Your task to perform on an android device: toggle javascript in the chrome app Image 0: 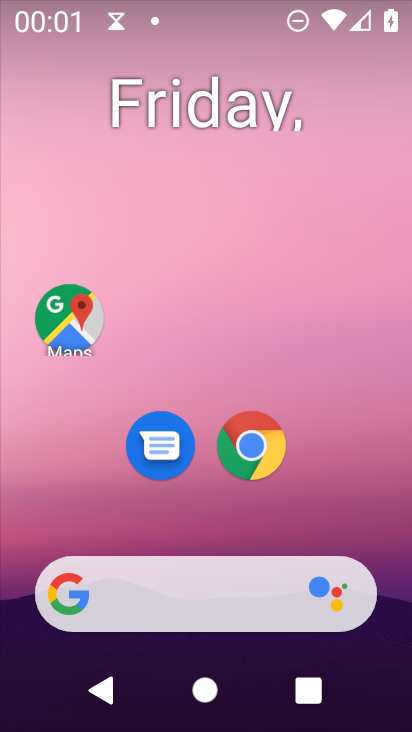
Step 0: click (249, 447)
Your task to perform on an android device: toggle javascript in the chrome app Image 1: 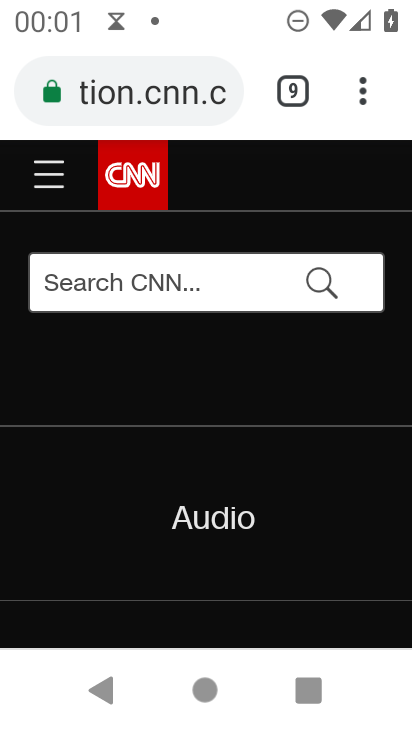
Step 1: click (362, 95)
Your task to perform on an android device: toggle javascript in the chrome app Image 2: 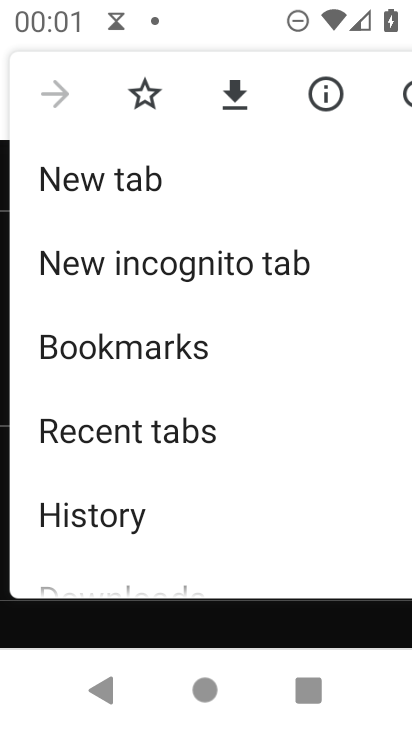
Step 2: drag from (106, 548) to (104, 162)
Your task to perform on an android device: toggle javascript in the chrome app Image 3: 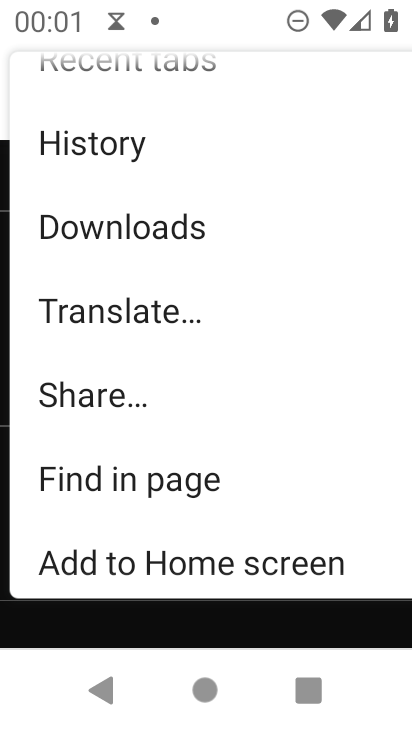
Step 3: drag from (112, 532) to (109, 149)
Your task to perform on an android device: toggle javascript in the chrome app Image 4: 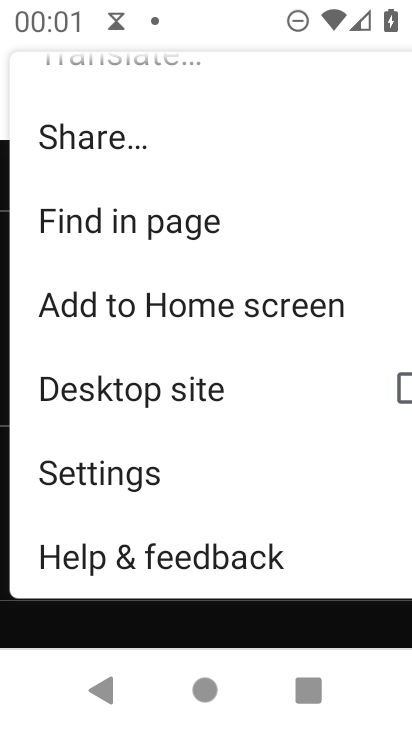
Step 4: click (126, 469)
Your task to perform on an android device: toggle javascript in the chrome app Image 5: 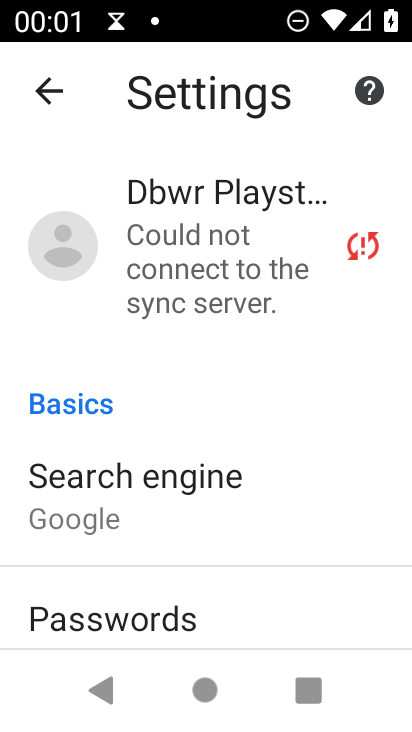
Step 5: drag from (176, 628) to (179, 203)
Your task to perform on an android device: toggle javascript in the chrome app Image 6: 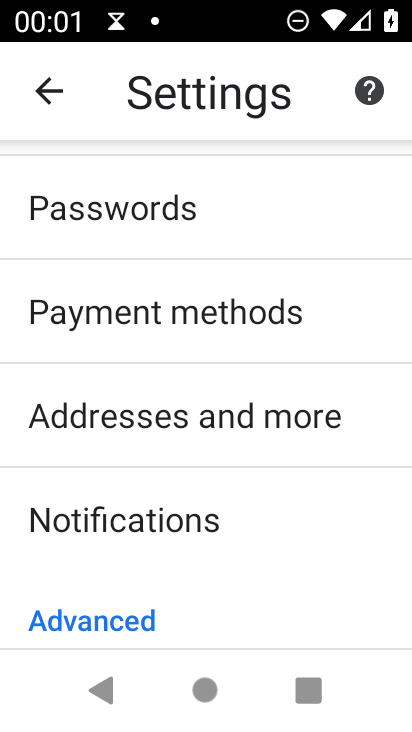
Step 6: drag from (193, 633) to (199, 187)
Your task to perform on an android device: toggle javascript in the chrome app Image 7: 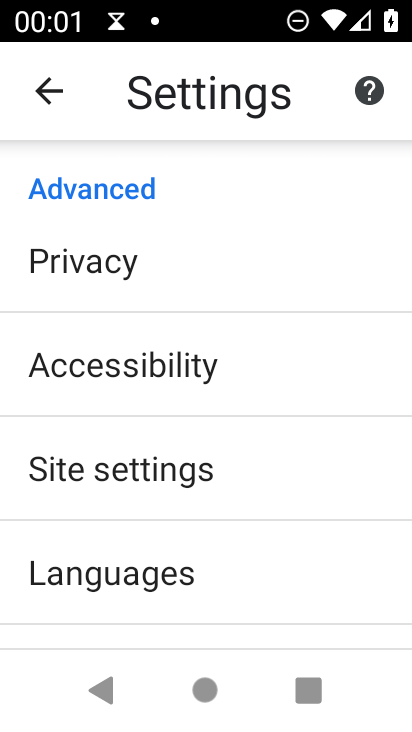
Step 7: click (138, 464)
Your task to perform on an android device: toggle javascript in the chrome app Image 8: 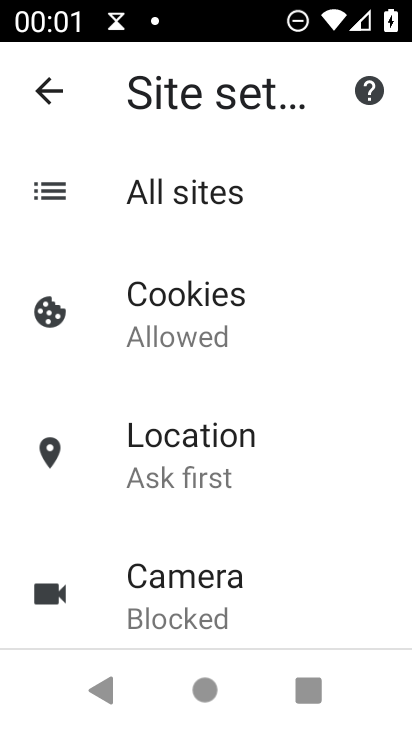
Step 8: drag from (285, 639) to (264, 219)
Your task to perform on an android device: toggle javascript in the chrome app Image 9: 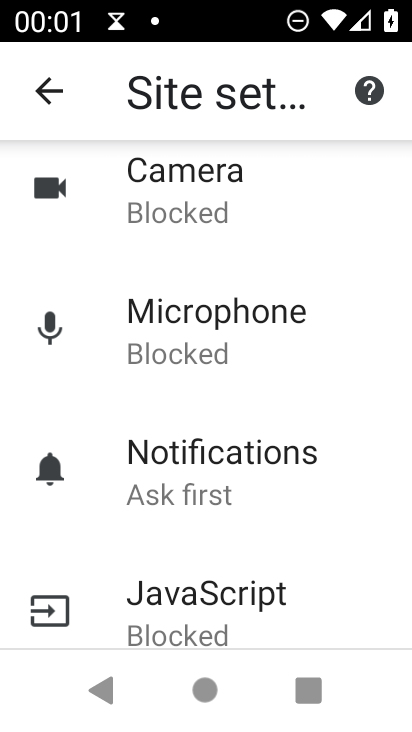
Step 9: click (200, 607)
Your task to perform on an android device: toggle javascript in the chrome app Image 10: 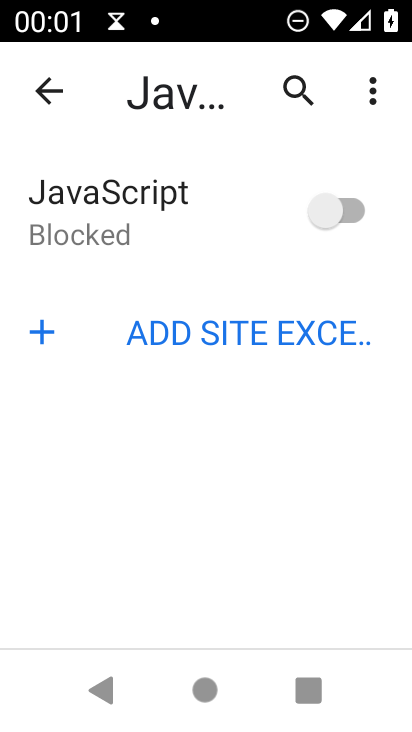
Step 10: click (362, 216)
Your task to perform on an android device: toggle javascript in the chrome app Image 11: 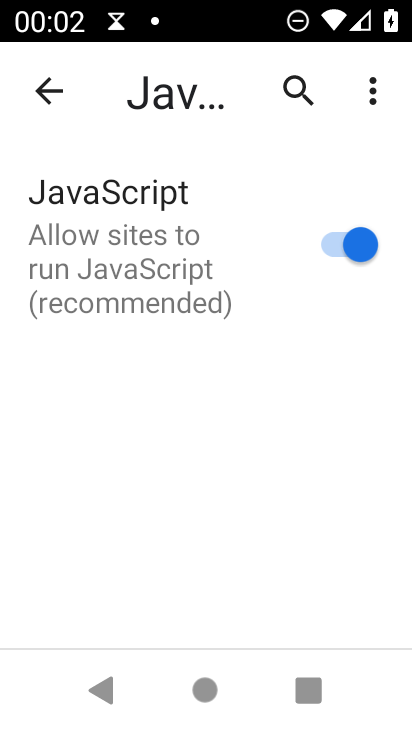
Step 11: task complete